Your task to perform on an android device: Open Reddit.com Image 0: 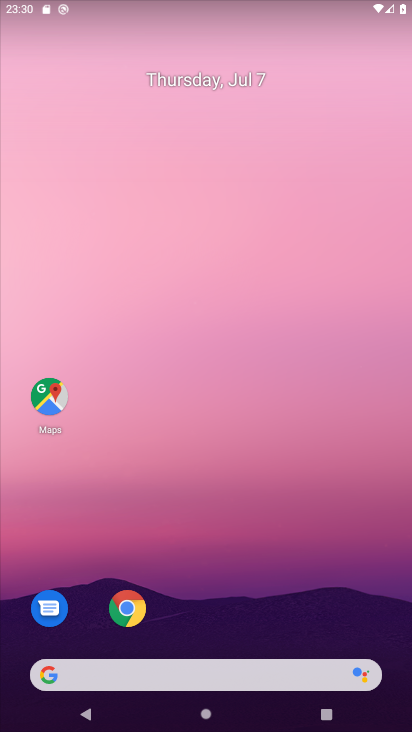
Step 0: drag from (244, 618) to (238, 463)
Your task to perform on an android device: Open Reddit.com Image 1: 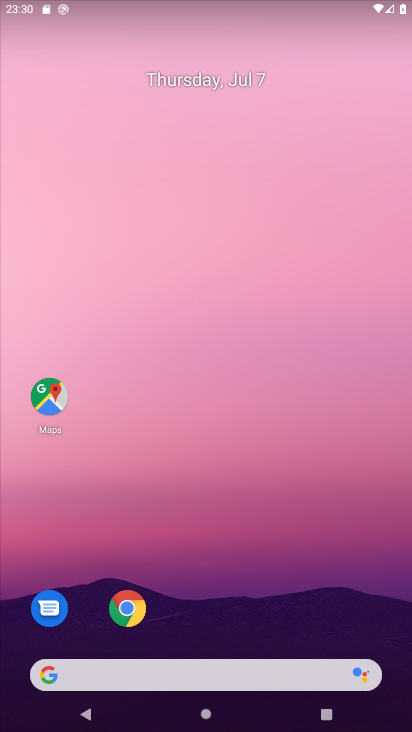
Step 1: drag from (241, 592) to (254, 183)
Your task to perform on an android device: Open Reddit.com Image 2: 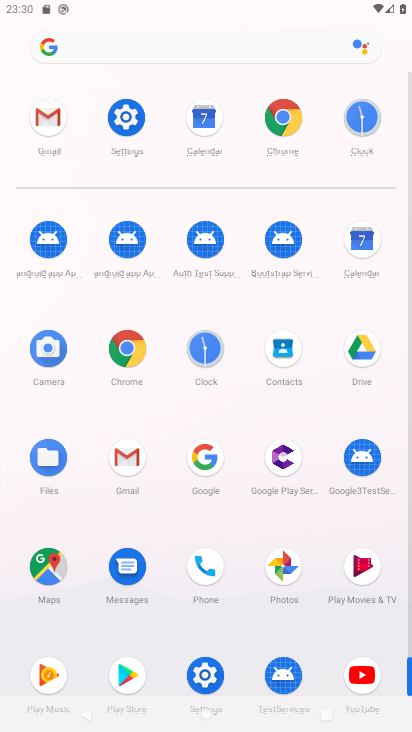
Step 2: click (282, 123)
Your task to perform on an android device: Open Reddit.com Image 3: 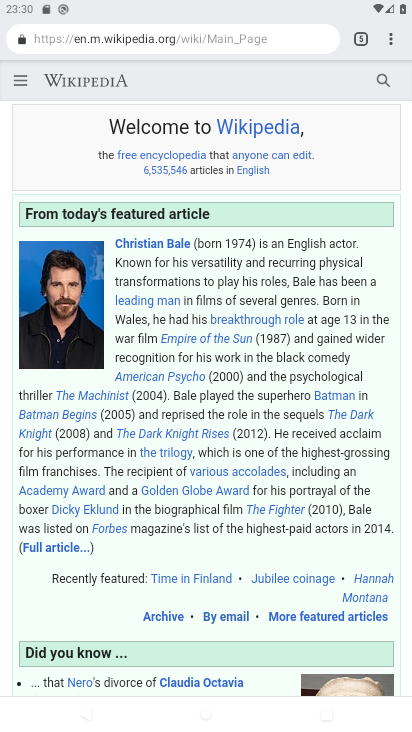
Step 3: click (395, 36)
Your task to perform on an android device: Open Reddit.com Image 4: 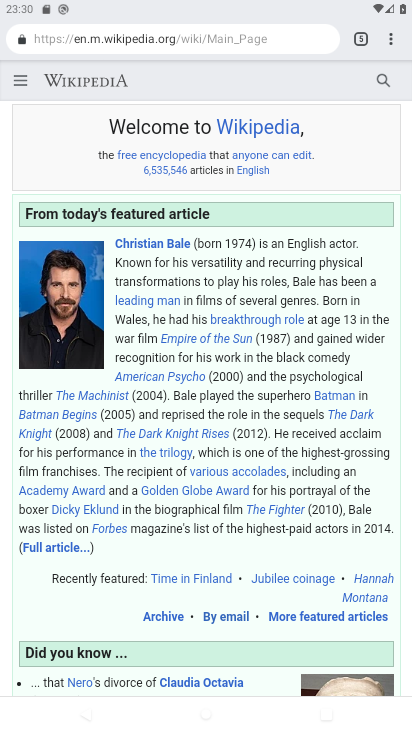
Step 4: click (389, 37)
Your task to perform on an android device: Open Reddit.com Image 5: 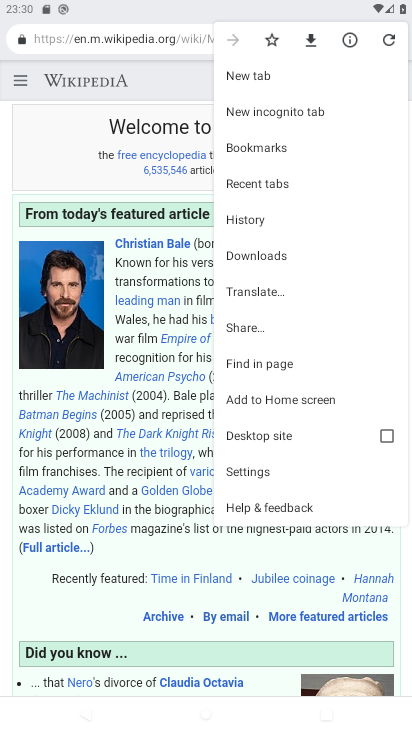
Step 5: click (277, 81)
Your task to perform on an android device: Open Reddit.com Image 6: 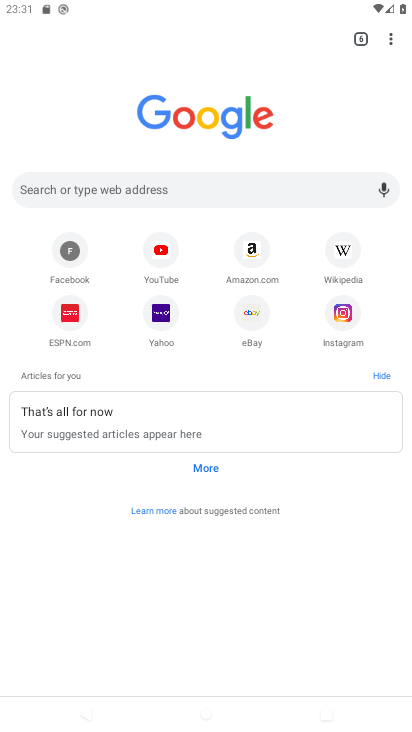
Step 6: click (180, 190)
Your task to perform on an android device: Open Reddit.com Image 7: 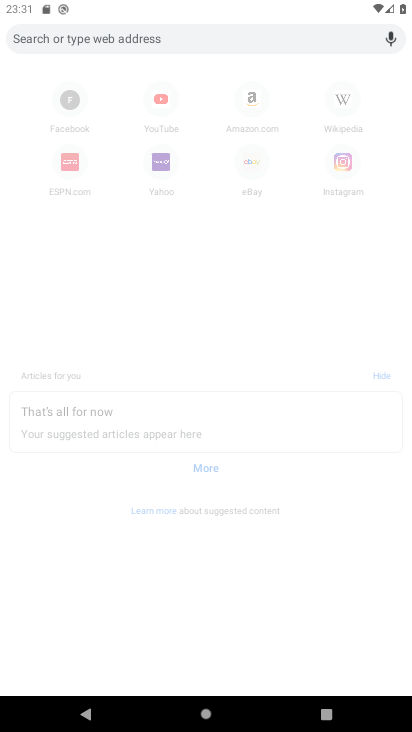
Step 7: type " Reddit.com "
Your task to perform on an android device: Open Reddit.com Image 8: 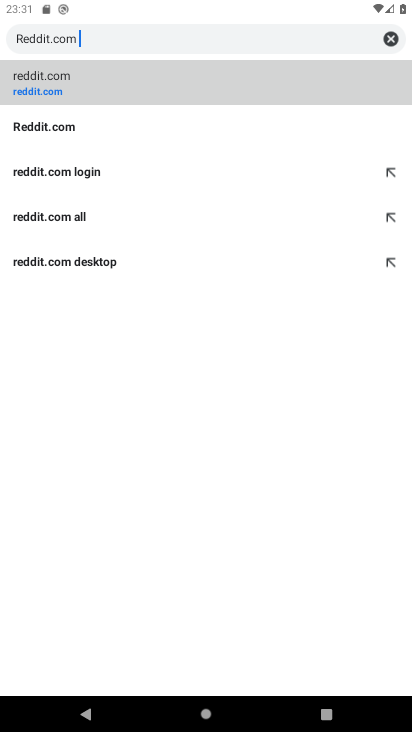
Step 8: click (98, 88)
Your task to perform on an android device: Open Reddit.com Image 9: 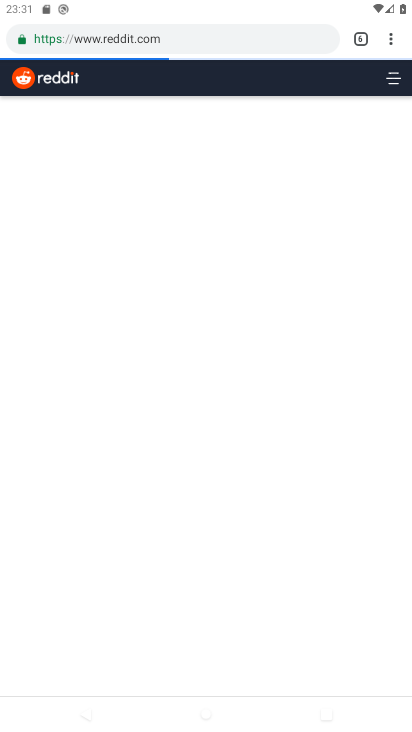
Step 9: task complete